Your task to perform on an android device: Search for "logitech g pro" on bestbuy.com, select the first entry, and add it to the cart. Image 0: 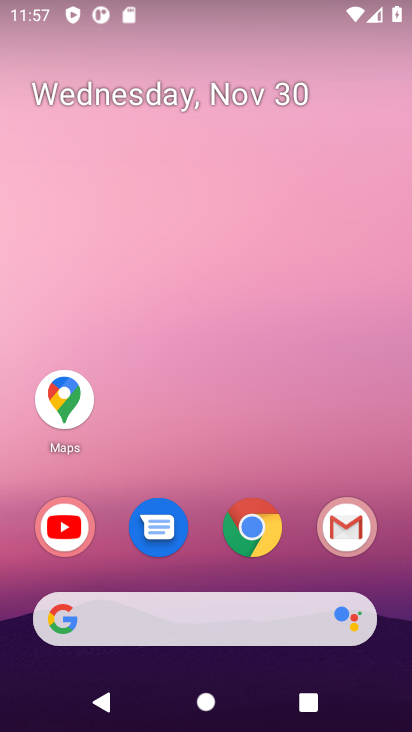
Step 0: click (252, 536)
Your task to perform on an android device: Search for "logitech g pro" on bestbuy.com, select the first entry, and add it to the cart. Image 1: 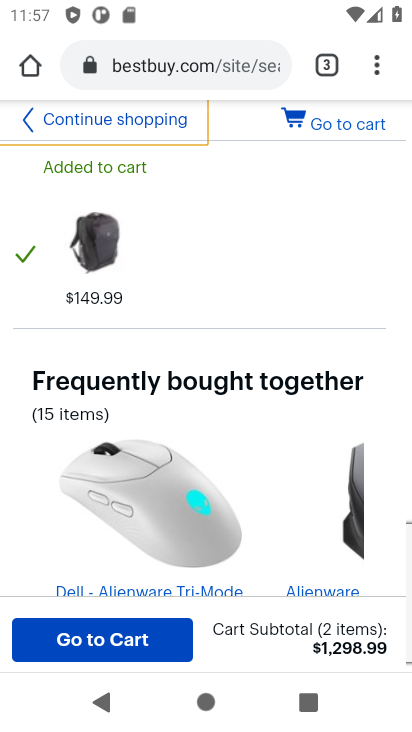
Step 1: drag from (235, 196) to (216, 332)
Your task to perform on an android device: Search for "logitech g pro" on bestbuy.com, select the first entry, and add it to the cart. Image 2: 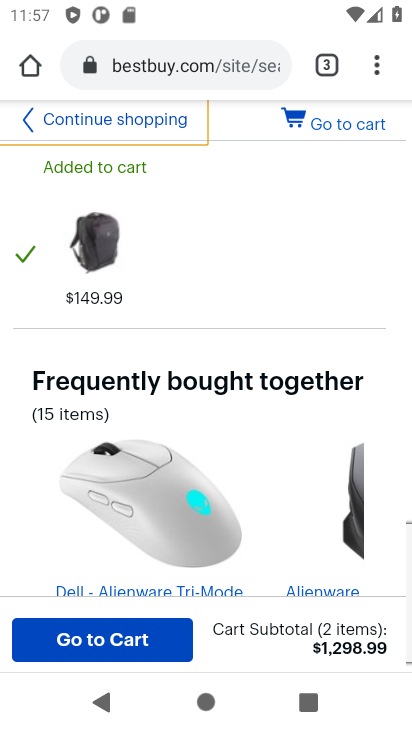
Step 2: click (107, 120)
Your task to perform on an android device: Search for "logitech g pro" on bestbuy.com, select the first entry, and add it to the cart. Image 3: 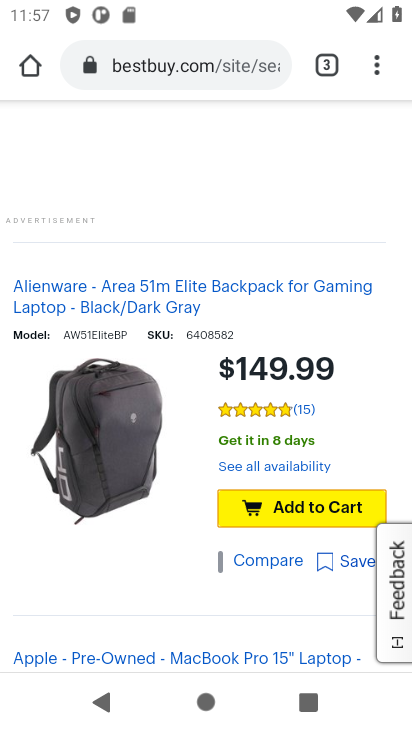
Step 3: drag from (170, 182) to (163, 535)
Your task to perform on an android device: Search for "logitech g pro" on bestbuy.com, select the first entry, and add it to the cart. Image 4: 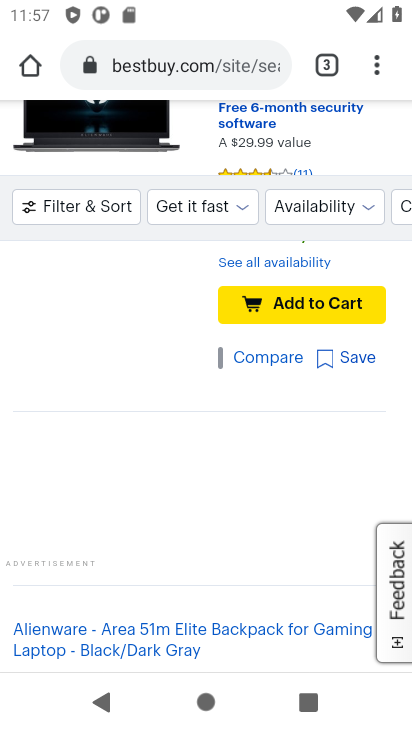
Step 4: drag from (203, 172) to (161, 547)
Your task to perform on an android device: Search for "logitech g pro" on bestbuy.com, select the first entry, and add it to the cart. Image 5: 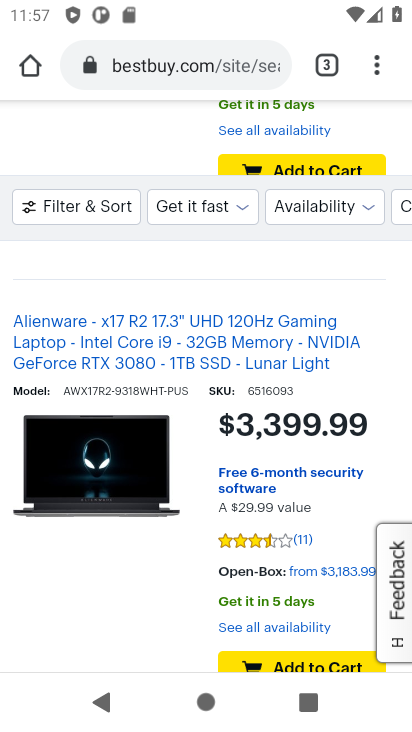
Step 5: drag from (176, 217) to (166, 652)
Your task to perform on an android device: Search for "logitech g pro" on bestbuy.com, select the first entry, and add it to the cart. Image 6: 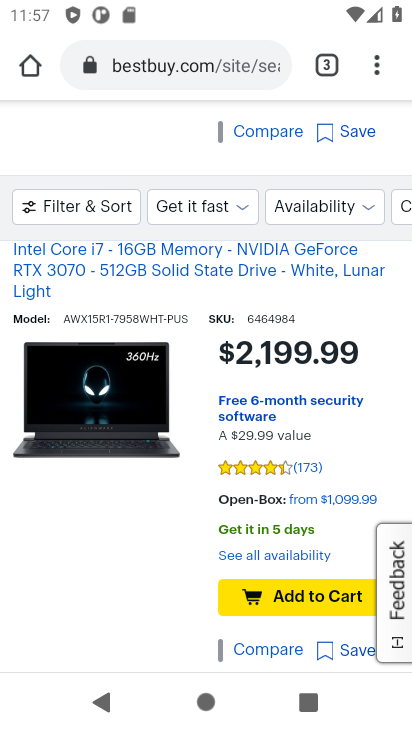
Step 6: drag from (169, 170) to (119, 552)
Your task to perform on an android device: Search for "logitech g pro" on bestbuy.com, select the first entry, and add it to the cart. Image 7: 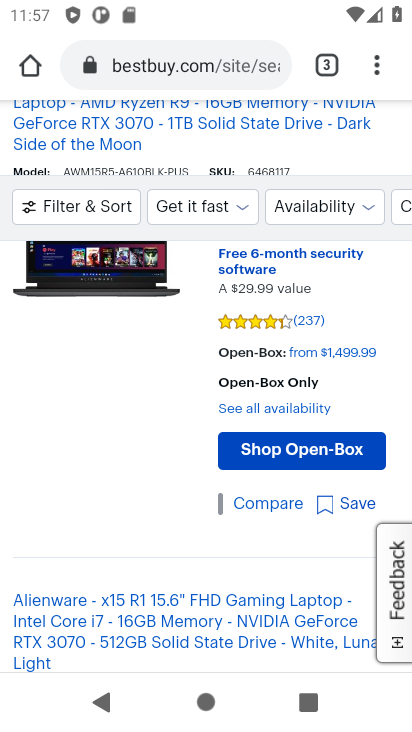
Step 7: drag from (170, 151) to (186, 402)
Your task to perform on an android device: Search for "logitech g pro" on bestbuy.com, select the first entry, and add it to the cart. Image 8: 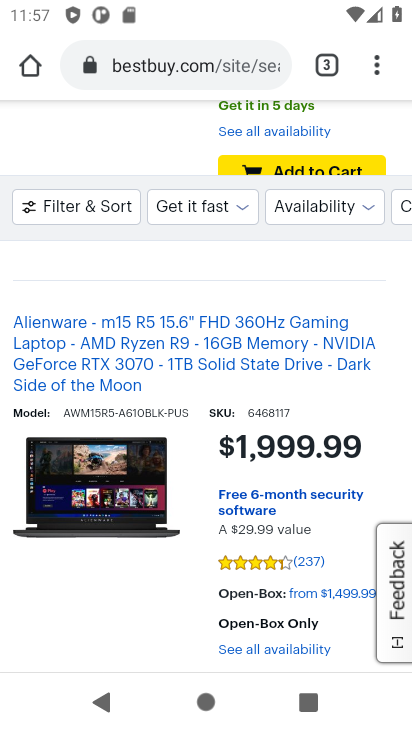
Step 8: drag from (177, 142) to (173, 383)
Your task to perform on an android device: Search for "logitech g pro" on bestbuy.com, select the first entry, and add it to the cart. Image 9: 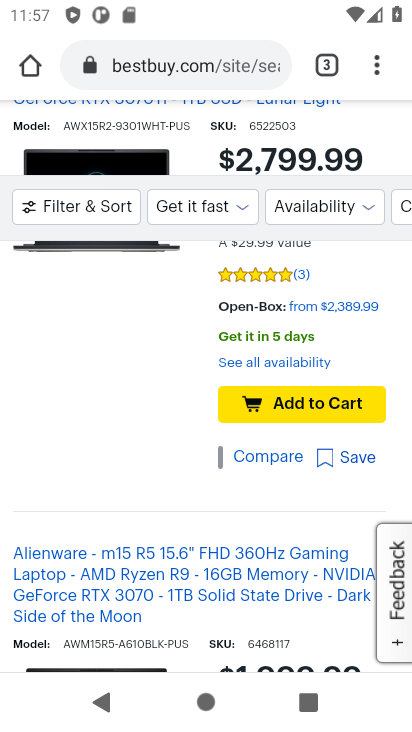
Step 9: drag from (140, 141) to (114, 395)
Your task to perform on an android device: Search for "logitech g pro" on bestbuy.com, select the first entry, and add it to the cart. Image 10: 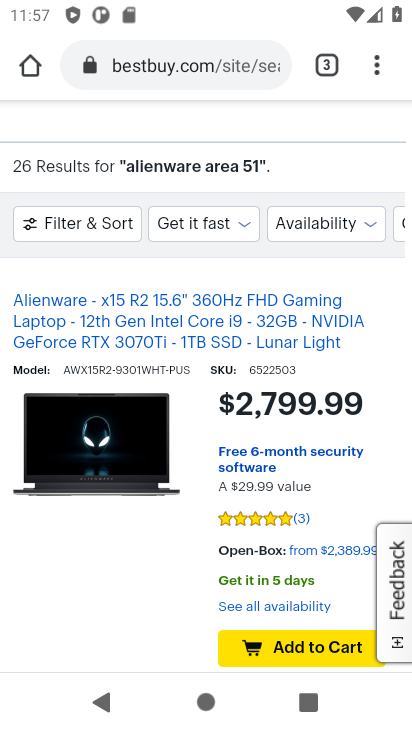
Step 10: drag from (152, 134) to (144, 407)
Your task to perform on an android device: Search for "logitech g pro" on bestbuy.com, select the first entry, and add it to the cart. Image 11: 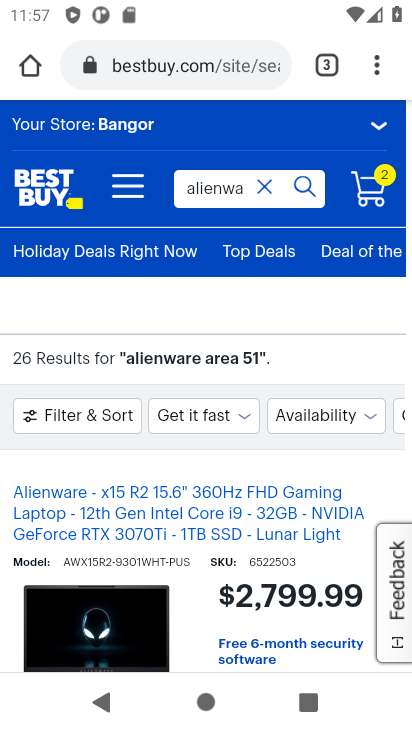
Step 11: click (257, 185)
Your task to perform on an android device: Search for "logitech g pro" on bestbuy.com, select the first entry, and add it to the cart. Image 12: 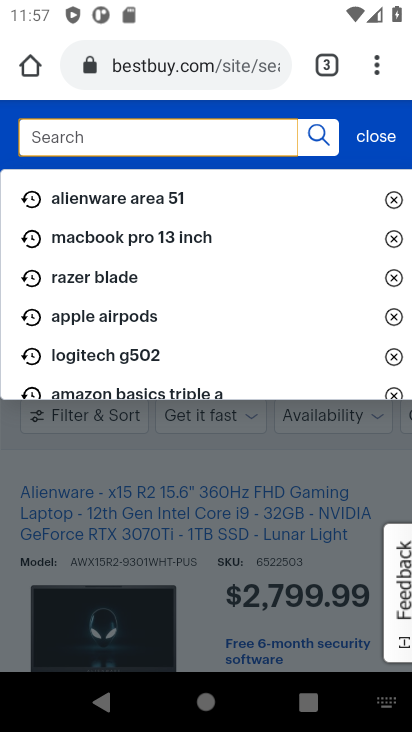
Step 12: type "logitech g pro"
Your task to perform on an android device: Search for "logitech g pro" on bestbuy.com, select the first entry, and add it to the cart. Image 13: 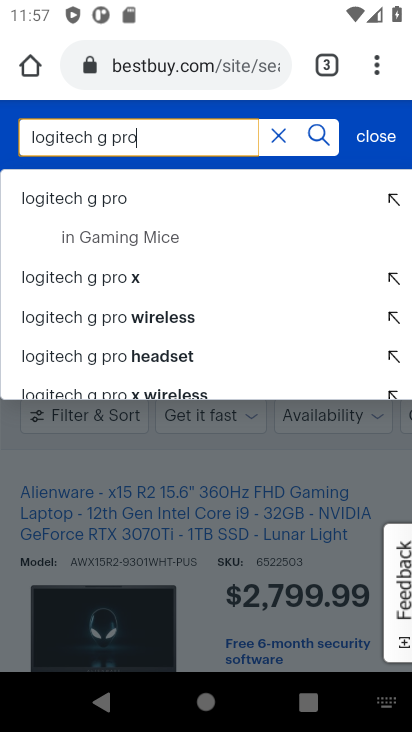
Step 13: click (55, 210)
Your task to perform on an android device: Search for "logitech g pro" on bestbuy.com, select the first entry, and add it to the cart. Image 14: 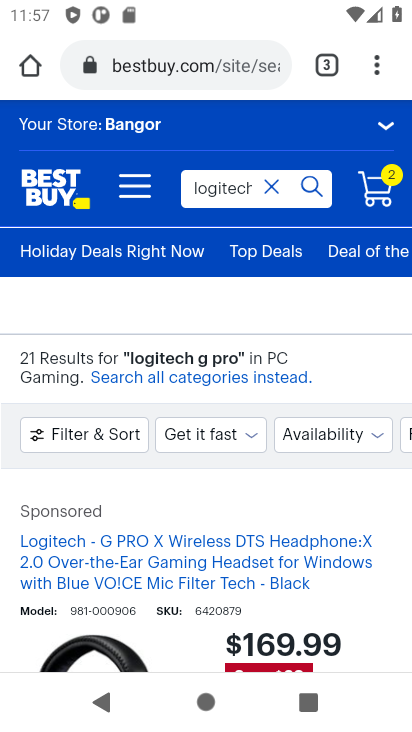
Step 14: drag from (159, 466) to (142, 320)
Your task to perform on an android device: Search for "logitech g pro" on bestbuy.com, select the first entry, and add it to the cart. Image 15: 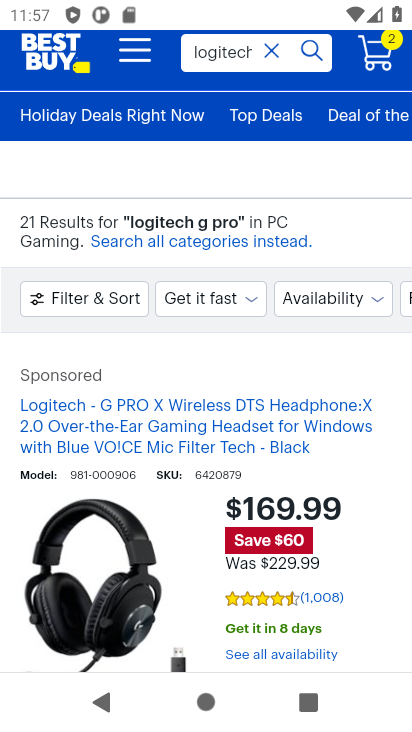
Step 15: drag from (134, 482) to (123, 297)
Your task to perform on an android device: Search for "logitech g pro" on bestbuy.com, select the first entry, and add it to the cart. Image 16: 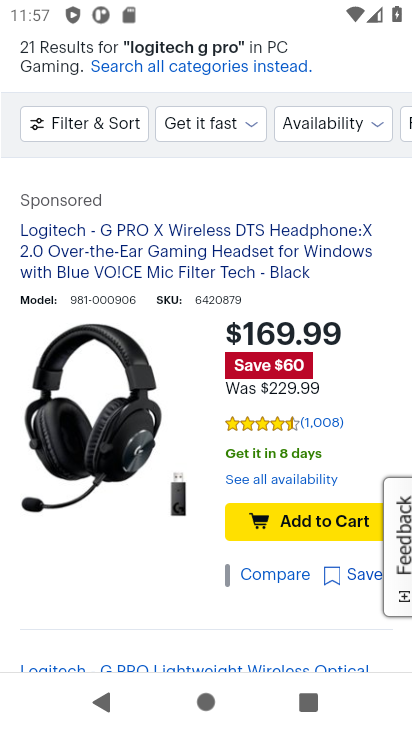
Step 16: click (272, 524)
Your task to perform on an android device: Search for "logitech g pro" on bestbuy.com, select the first entry, and add it to the cart. Image 17: 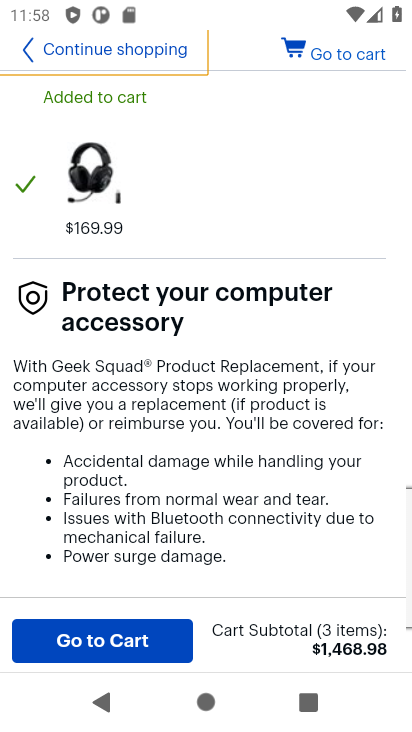
Step 17: task complete